Your task to perform on an android device: change alarm snooze length Image 0: 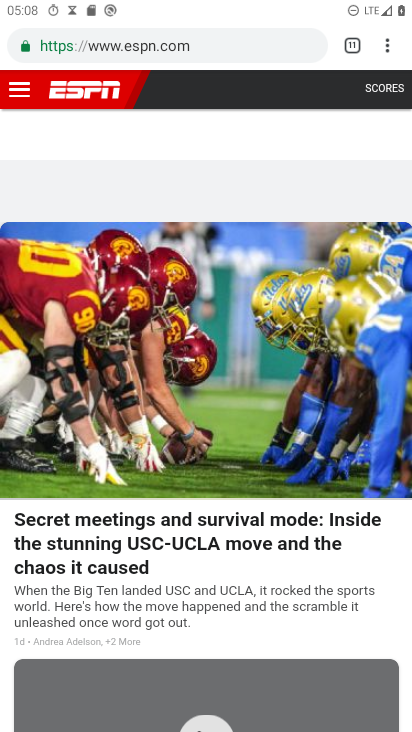
Step 0: press home button
Your task to perform on an android device: change alarm snooze length Image 1: 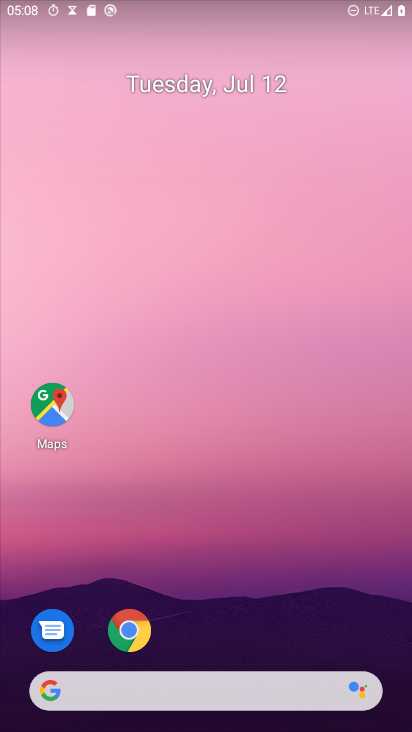
Step 1: drag from (235, 677) to (381, 3)
Your task to perform on an android device: change alarm snooze length Image 2: 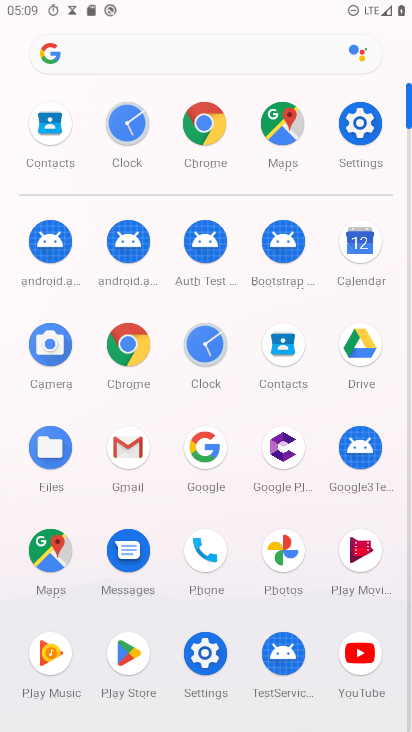
Step 2: click (211, 356)
Your task to perform on an android device: change alarm snooze length Image 3: 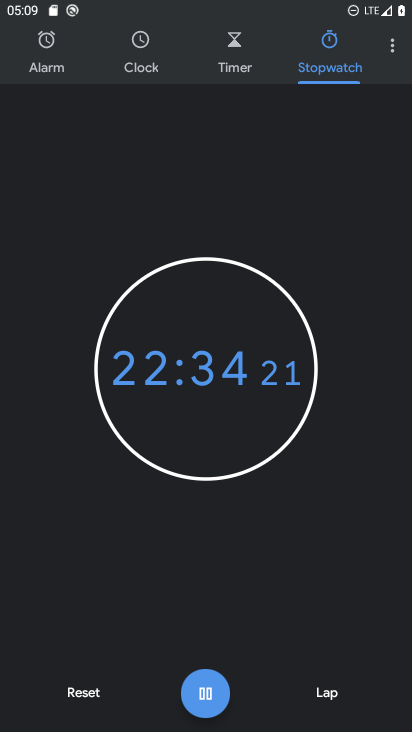
Step 3: drag from (398, 46) to (351, 241)
Your task to perform on an android device: change alarm snooze length Image 4: 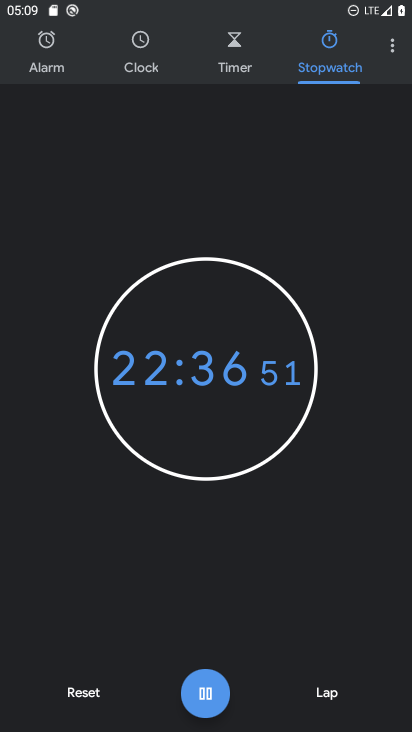
Step 4: click (388, 44)
Your task to perform on an android device: change alarm snooze length Image 5: 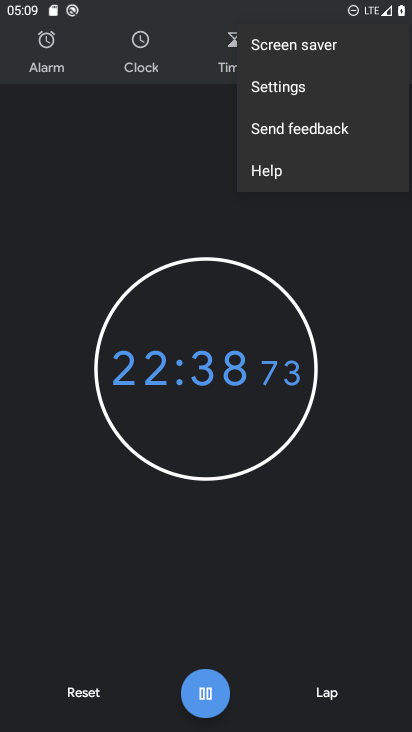
Step 5: click (288, 92)
Your task to perform on an android device: change alarm snooze length Image 6: 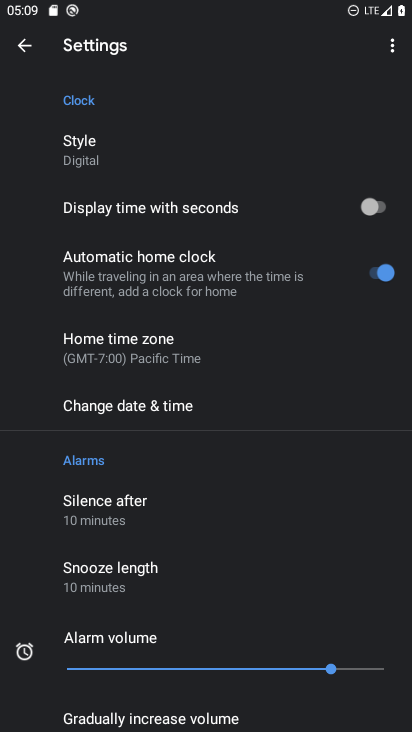
Step 6: drag from (169, 607) to (198, 407)
Your task to perform on an android device: change alarm snooze length Image 7: 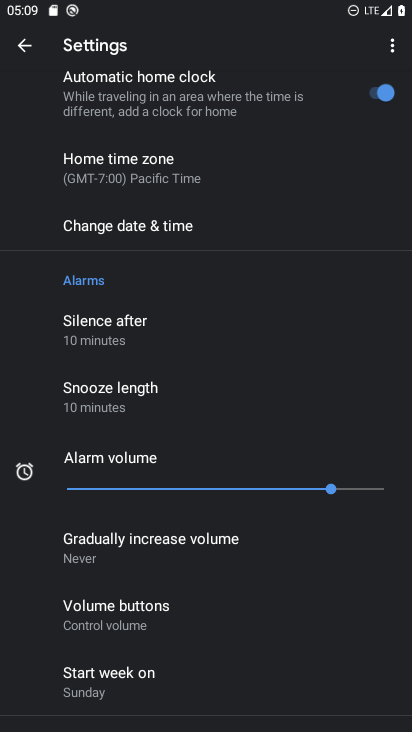
Step 7: click (156, 392)
Your task to perform on an android device: change alarm snooze length Image 8: 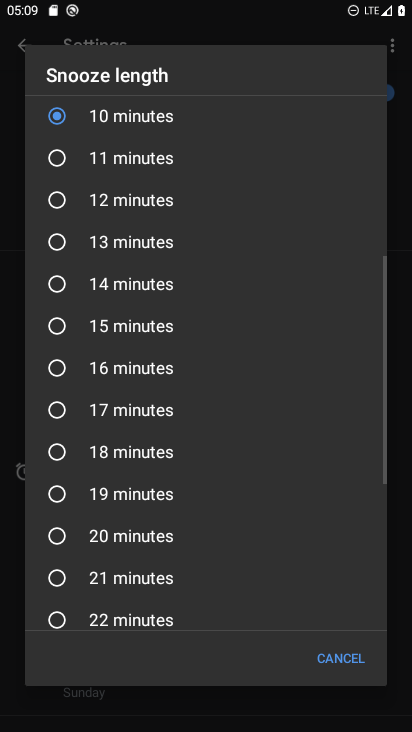
Step 8: click (66, 157)
Your task to perform on an android device: change alarm snooze length Image 9: 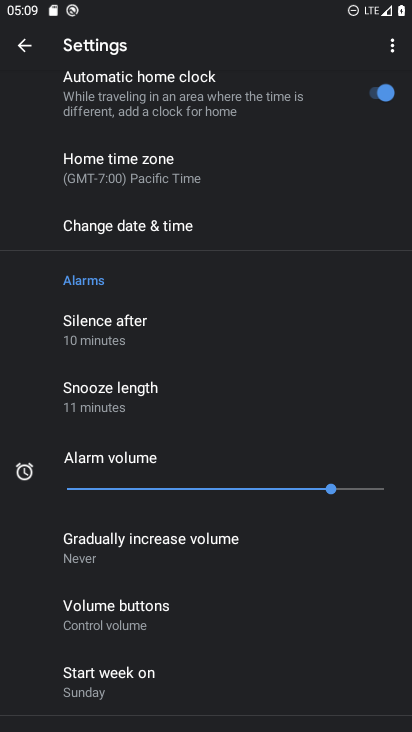
Step 9: task complete